Your task to perform on an android device: check battery use Image 0: 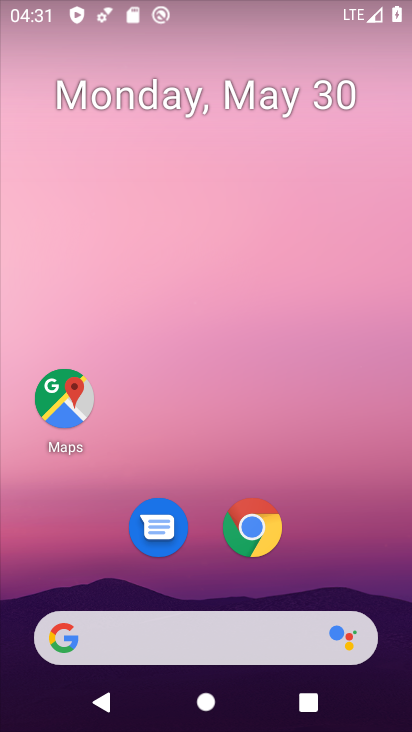
Step 0: drag from (237, 719) to (283, 0)
Your task to perform on an android device: check battery use Image 1: 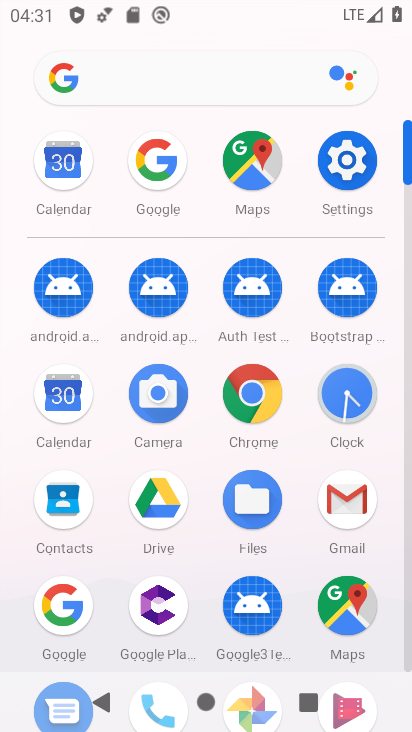
Step 1: click (347, 151)
Your task to perform on an android device: check battery use Image 2: 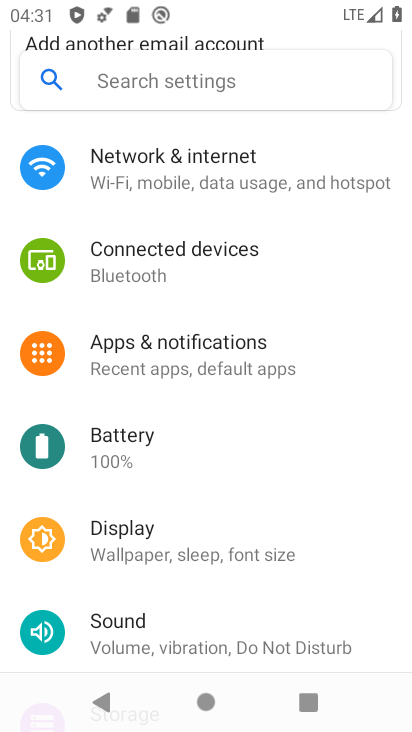
Step 2: click (110, 438)
Your task to perform on an android device: check battery use Image 3: 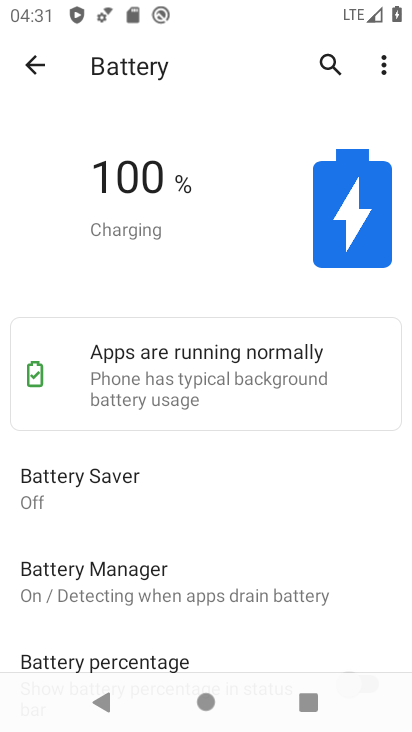
Step 3: click (384, 70)
Your task to perform on an android device: check battery use Image 4: 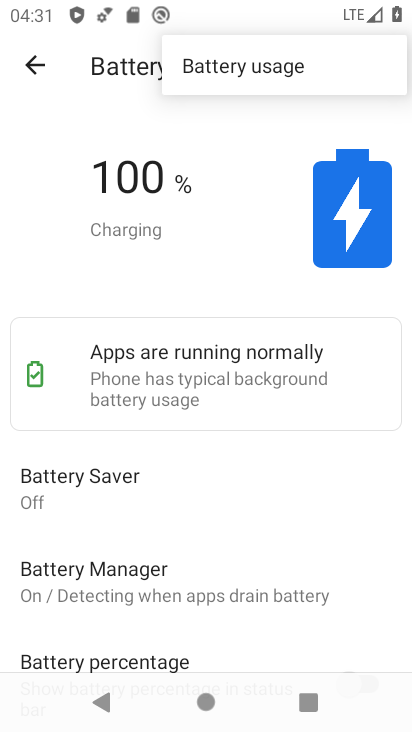
Step 4: click (219, 67)
Your task to perform on an android device: check battery use Image 5: 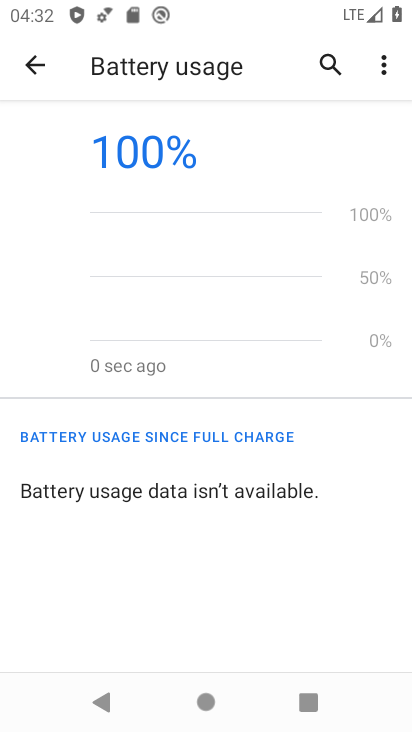
Step 5: click (384, 72)
Your task to perform on an android device: check battery use Image 6: 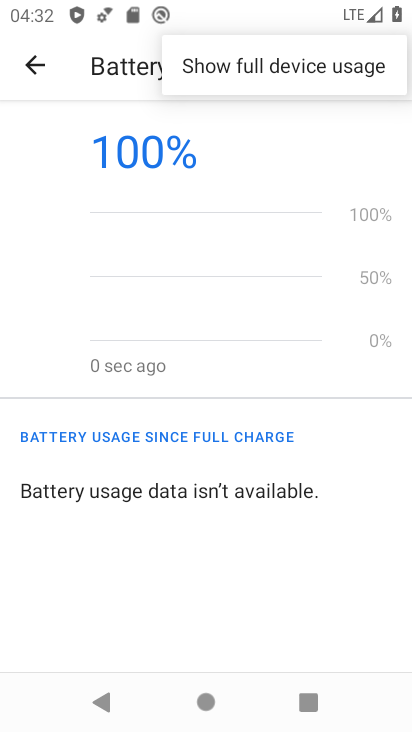
Step 6: click (319, 108)
Your task to perform on an android device: check battery use Image 7: 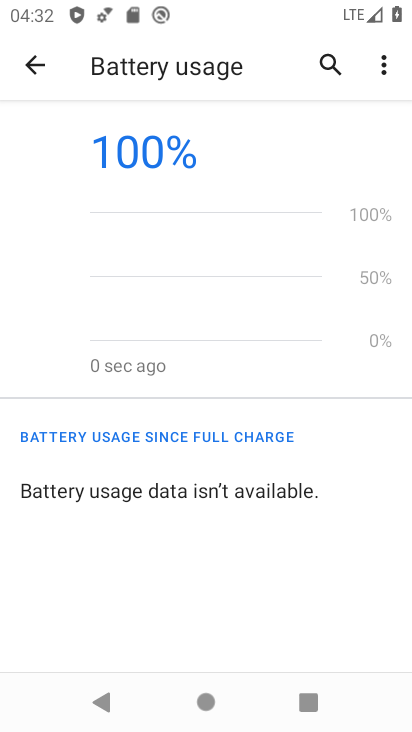
Step 7: task complete